Your task to perform on an android device: open app "Facebook Lite" Image 0: 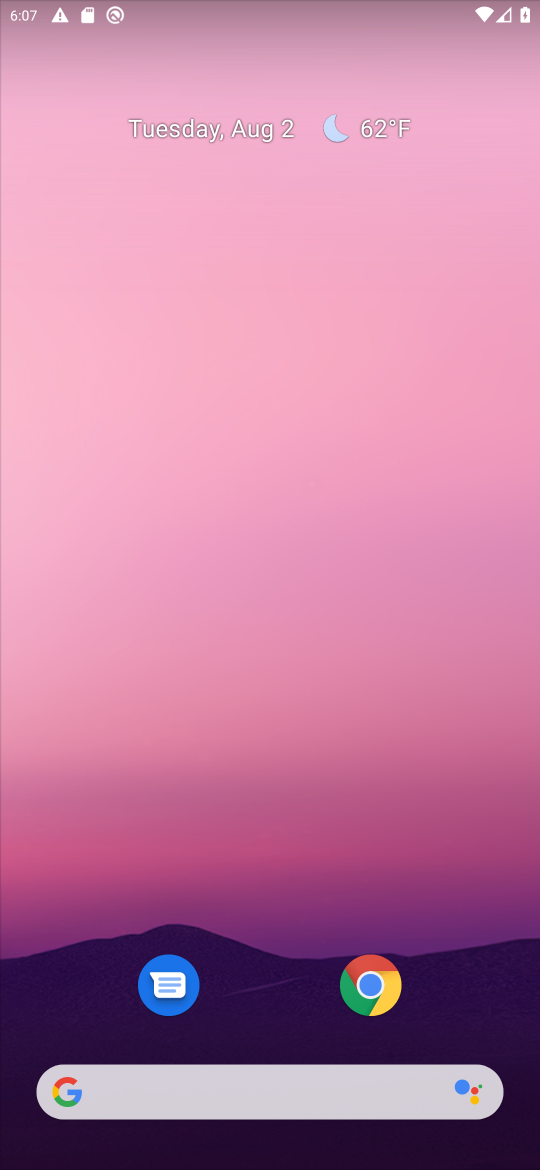
Step 0: drag from (263, 949) to (263, 309)
Your task to perform on an android device: open app "Facebook Lite" Image 1: 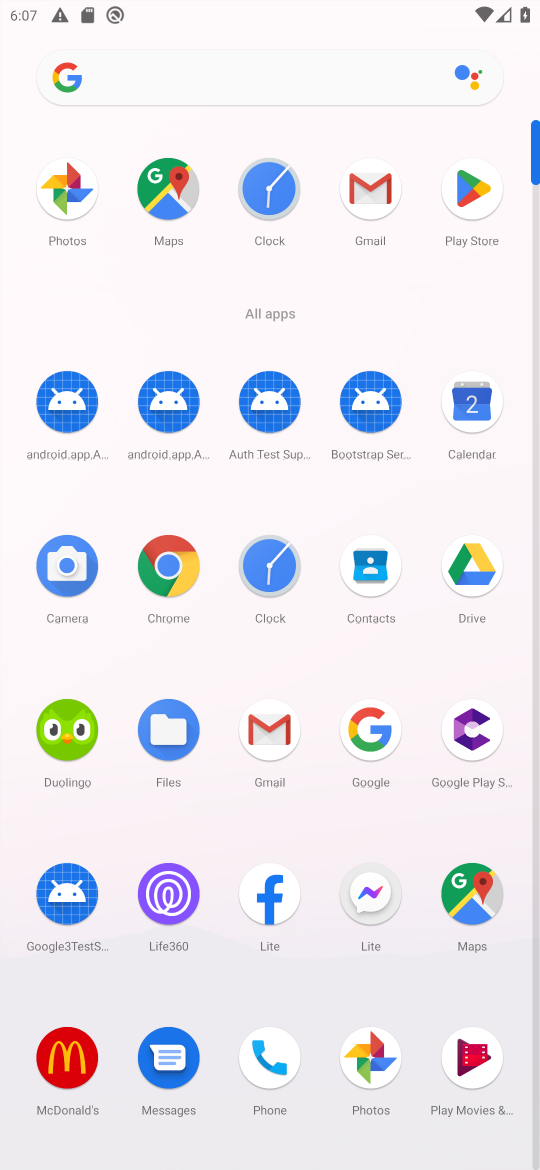
Step 1: click (465, 210)
Your task to perform on an android device: open app "Facebook Lite" Image 2: 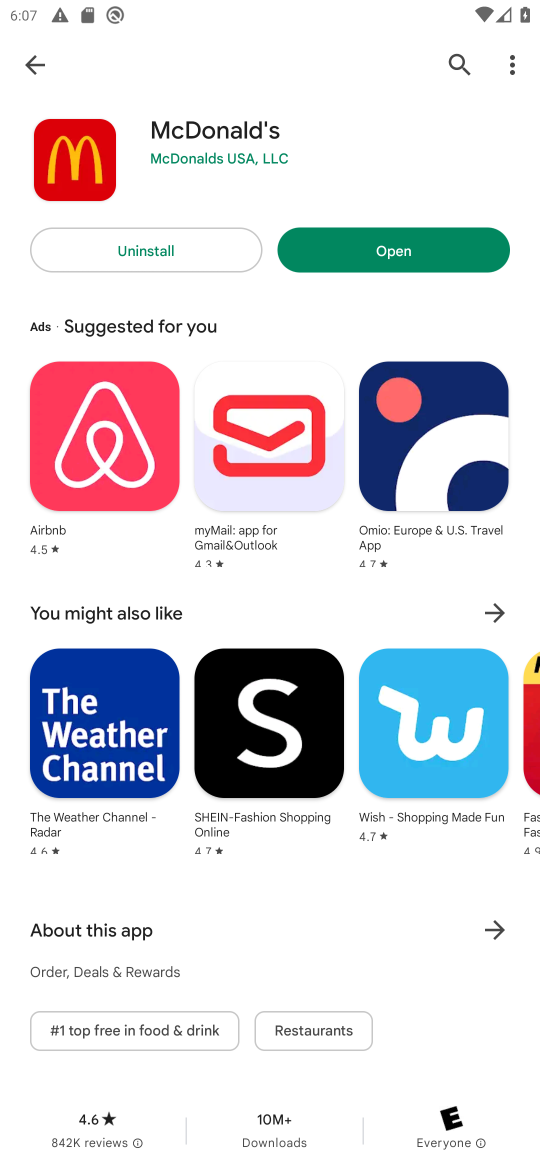
Step 2: click (449, 62)
Your task to perform on an android device: open app "Facebook Lite" Image 3: 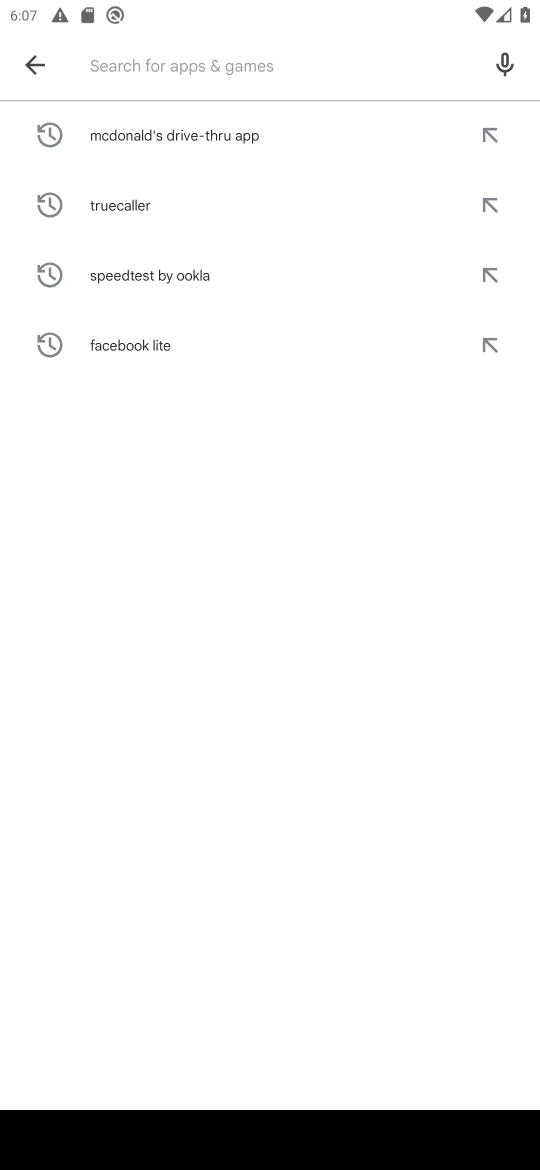
Step 3: type "Facebook Lite"
Your task to perform on an android device: open app "Facebook Lite" Image 4: 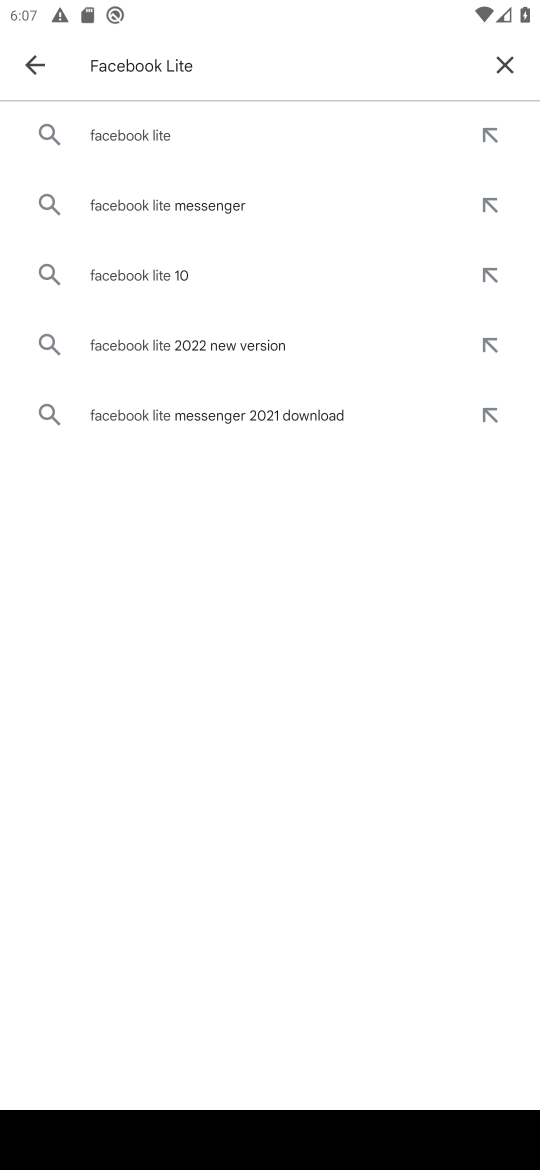
Step 4: click (202, 129)
Your task to perform on an android device: open app "Facebook Lite" Image 5: 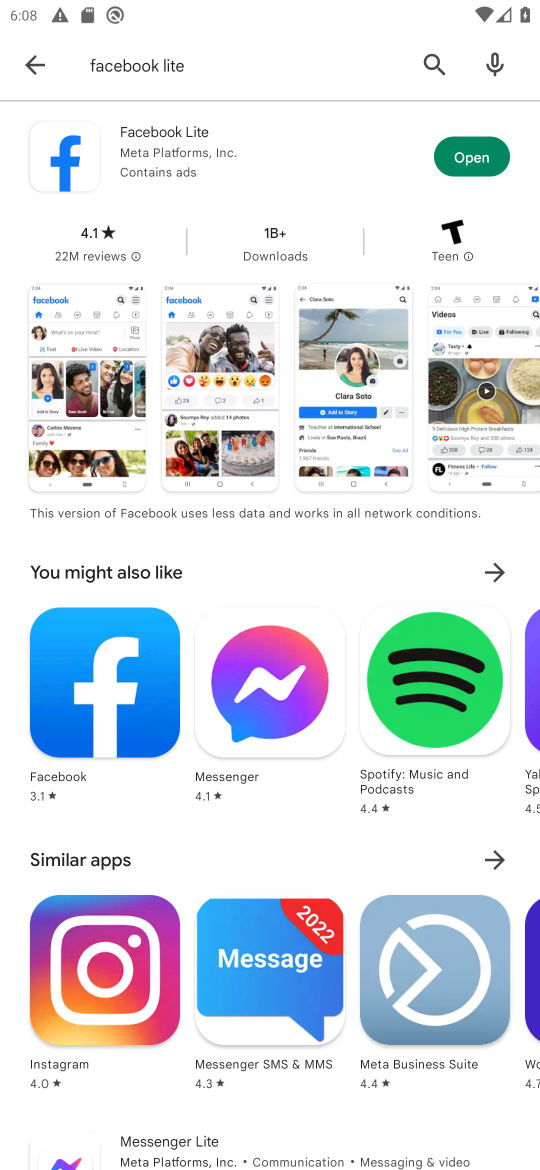
Step 5: click (467, 160)
Your task to perform on an android device: open app "Facebook Lite" Image 6: 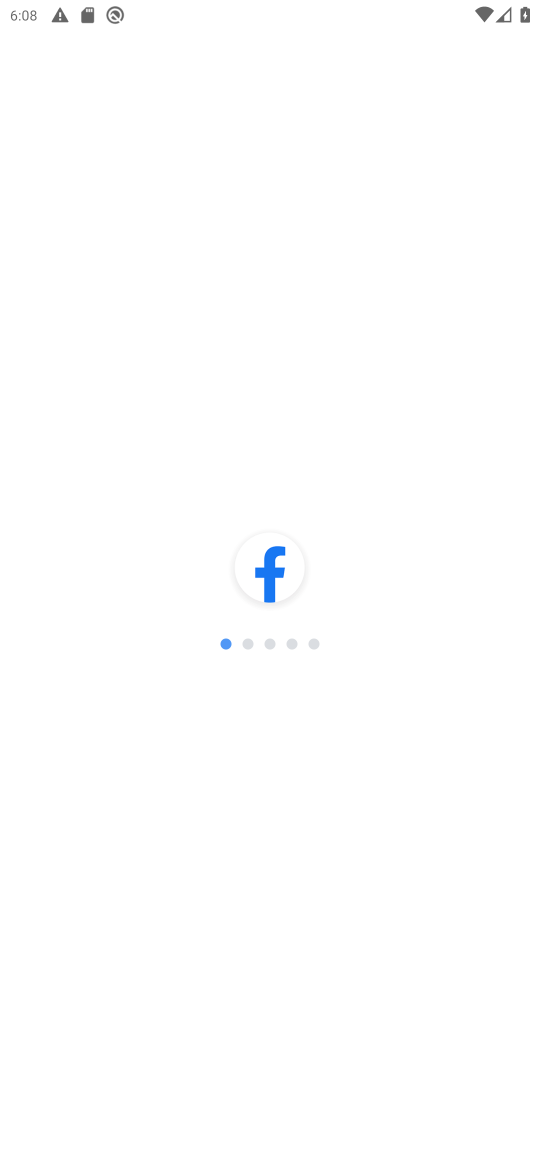
Step 6: task complete